Your task to perform on an android device: clear history in the chrome app Image 0: 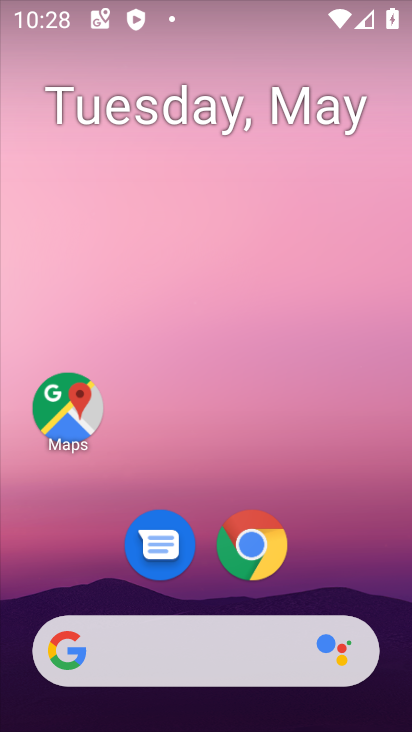
Step 0: drag from (226, 571) to (361, 15)
Your task to perform on an android device: clear history in the chrome app Image 1: 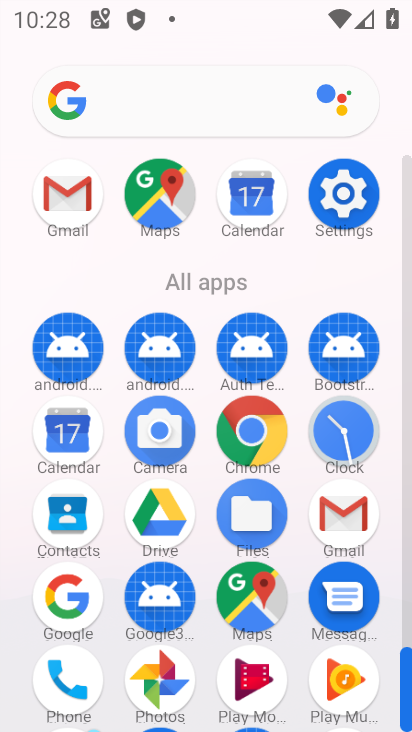
Step 1: click (270, 444)
Your task to perform on an android device: clear history in the chrome app Image 2: 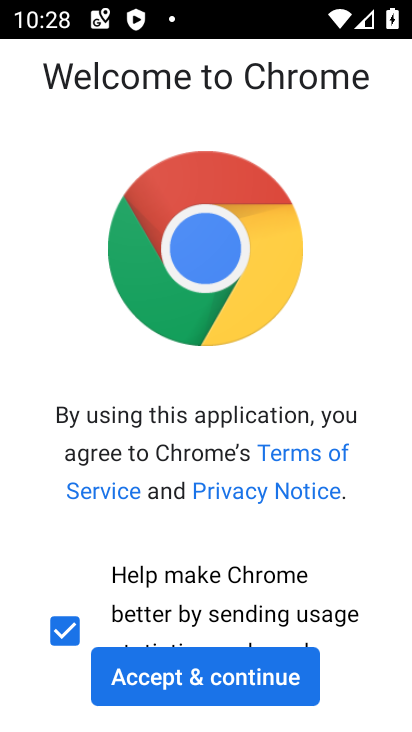
Step 2: click (257, 681)
Your task to perform on an android device: clear history in the chrome app Image 3: 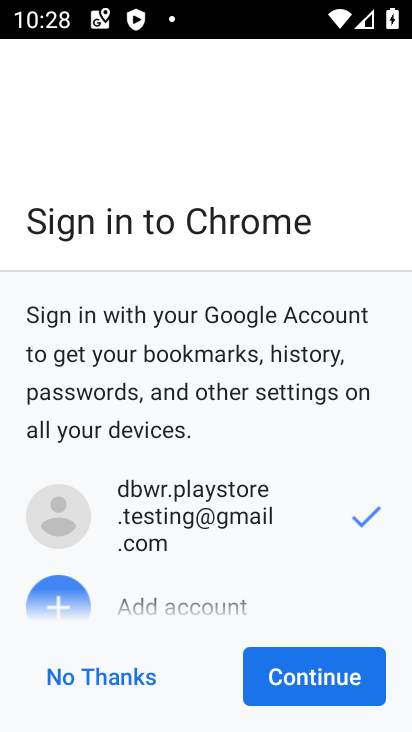
Step 3: click (325, 684)
Your task to perform on an android device: clear history in the chrome app Image 4: 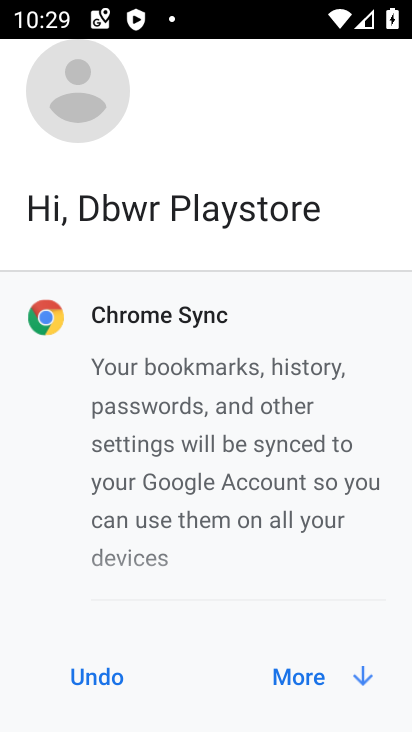
Step 4: click (304, 672)
Your task to perform on an android device: clear history in the chrome app Image 5: 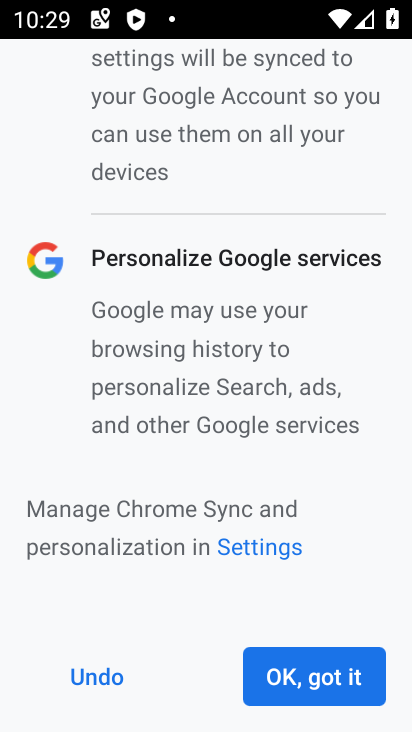
Step 5: click (291, 694)
Your task to perform on an android device: clear history in the chrome app Image 6: 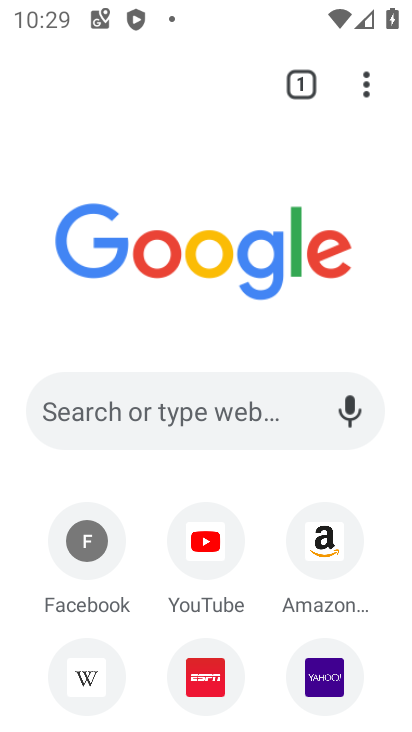
Step 6: click (367, 96)
Your task to perform on an android device: clear history in the chrome app Image 7: 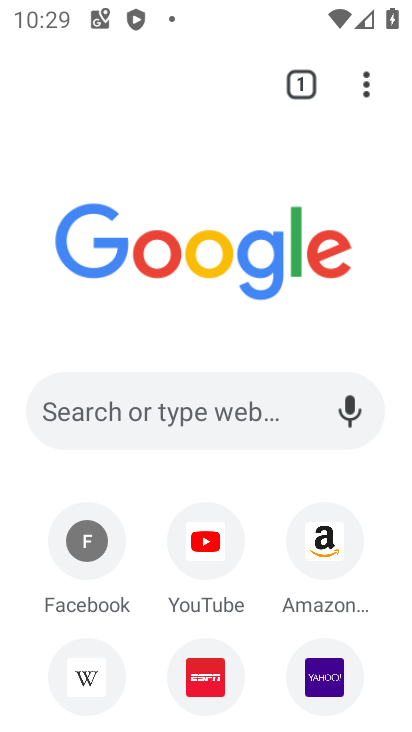
Step 7: click (377, 94)
Your task to perform on an android device: clear history in the chrome app Image 8: 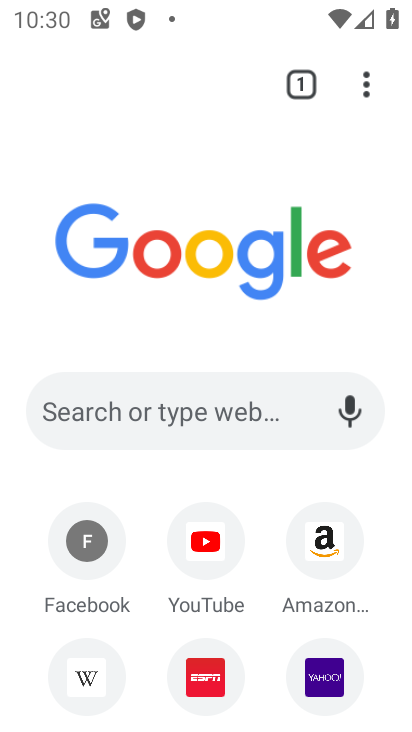
Step 8: click (372, 89)
Your task to perform on an android device: clear history in the chrome app Image 9: 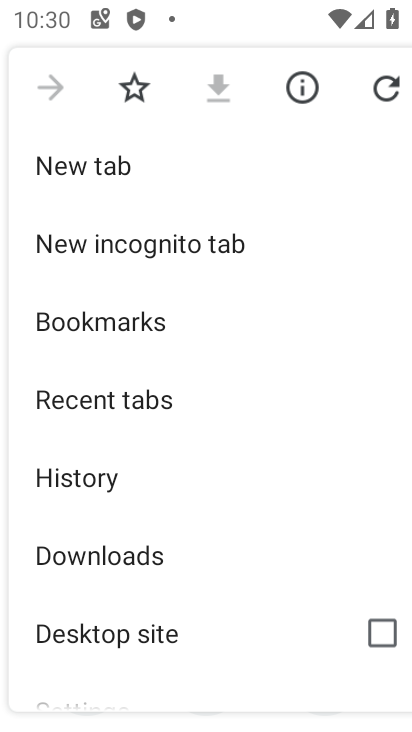
Step 9: click (106, 479)
Your task to perform on an android device: clear history in the chrome app Image 10: 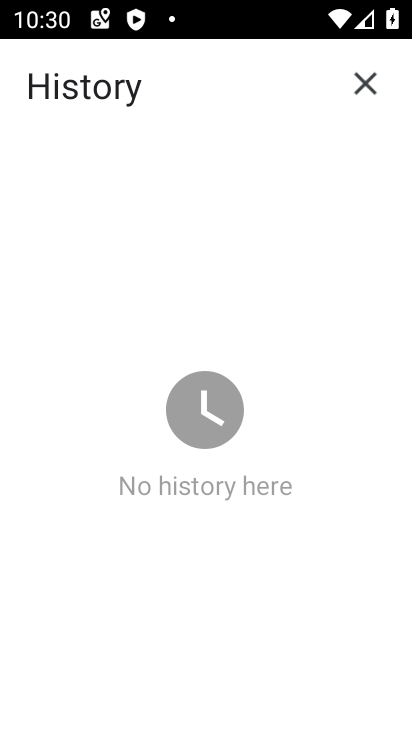
Step 10: task complete